Your task to perform on an android device: Open calendar and show me the fourth week of next month Image 0: 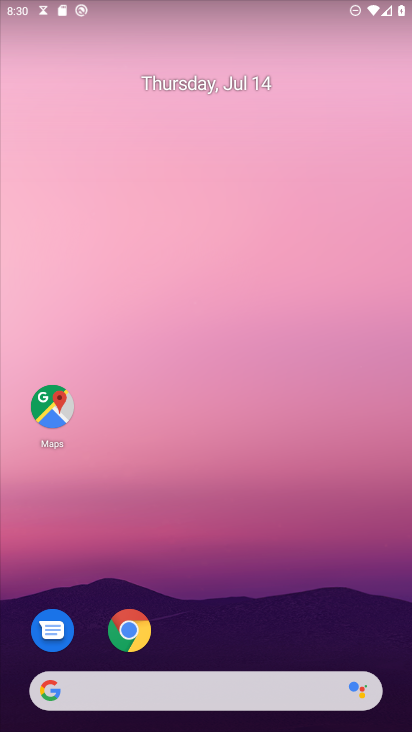
Step 0: drag from (317, 635) to (293, 217)
Your task to perform on an android device: Open calendar and show me the fourth week of next month Image 1: 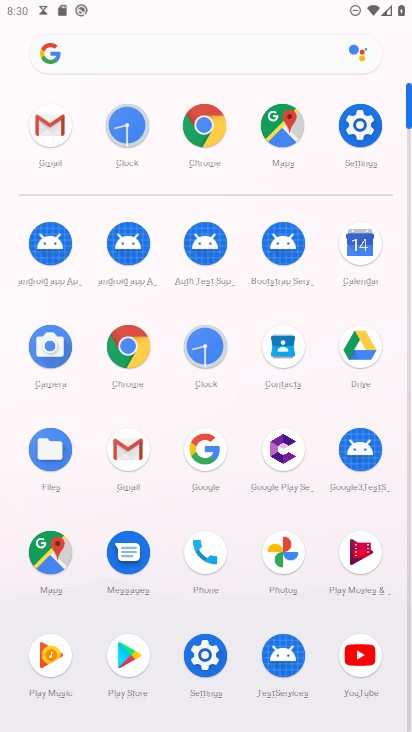
Step 1: click (353, 246)
Your task to perform on an android device: Open calendar and show me the fourth week of next month Image 2: 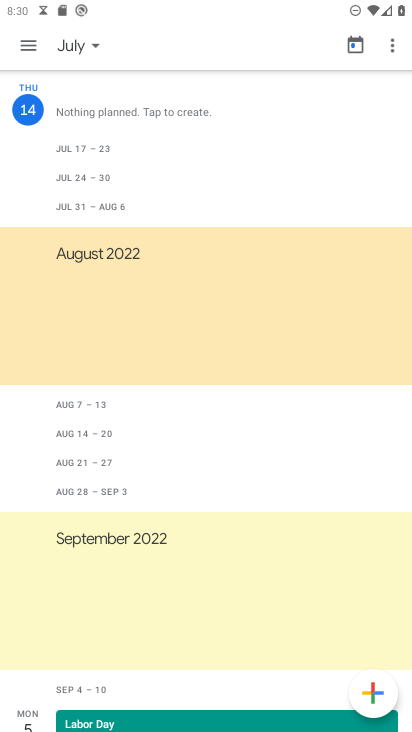
Step 2: click (71, 37)
Your task to perform on an android device: Open calendar and show me the fourth week of next month Image 3: 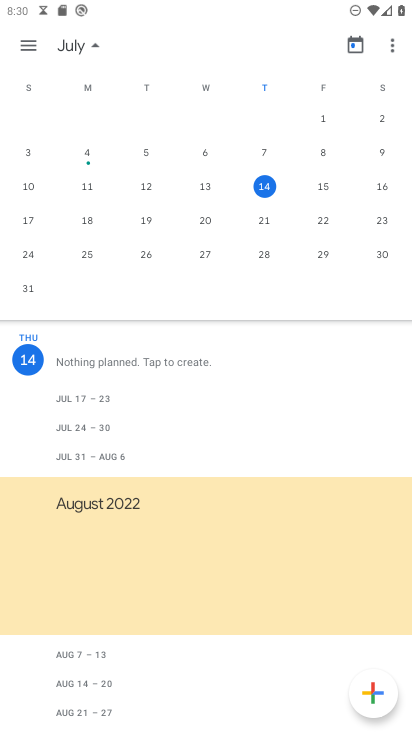
Step 3: drag from (396, 230) to (3, 150)
Your task to perform on an android device: Open calendar and show me the fourth week of next month Image 4: 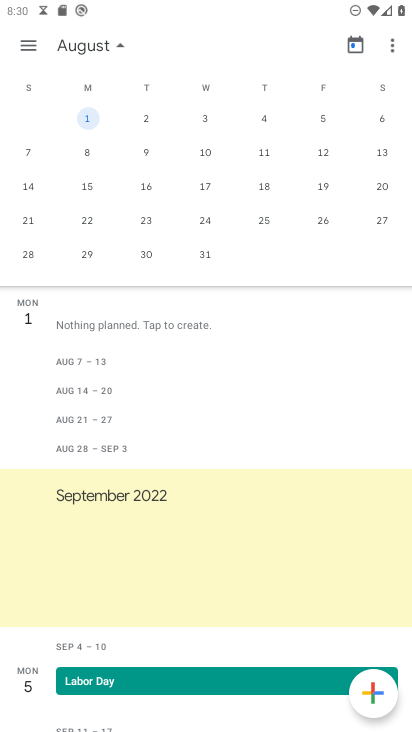
Step 4: click (29, 222)
Your task to perform on an android device: Open calendar and show me the fourth week of next month Image 5: 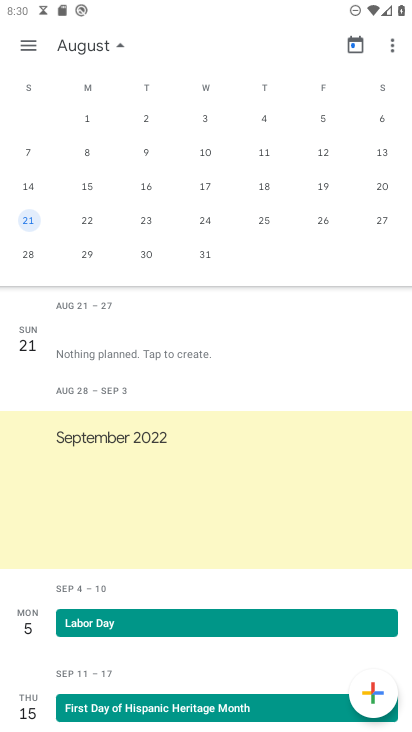
Step 5: task complete